Your task to perform on an android device: Go to Yahoo.com Image 0: 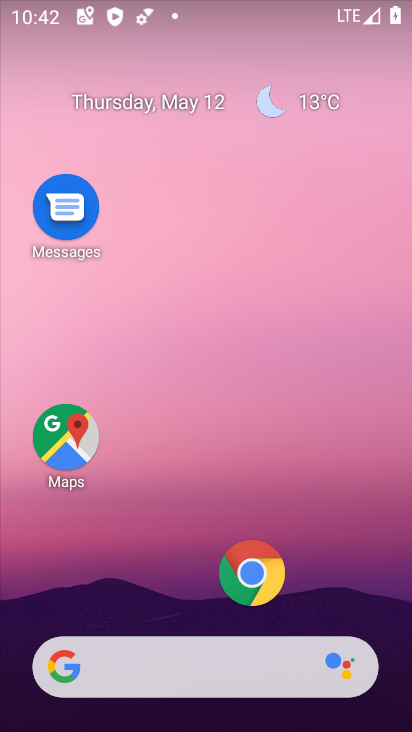
Step 0: click (251, 584)
Your task to perform on an android device: Go to Yahoo.com Image 1: 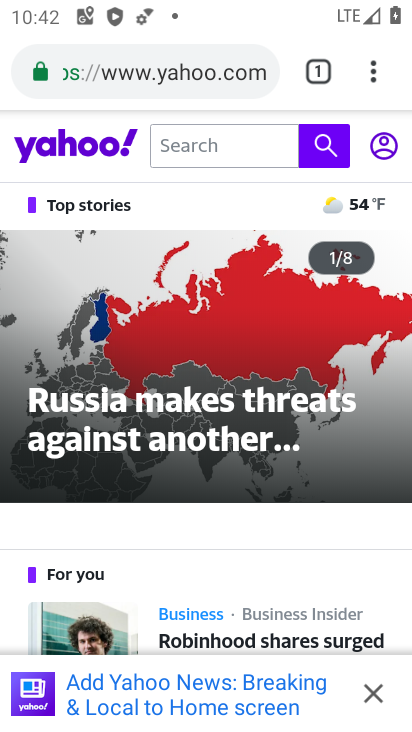
Step 1: task complete